Your task to perform on an android device: Open my contact list Image 0: 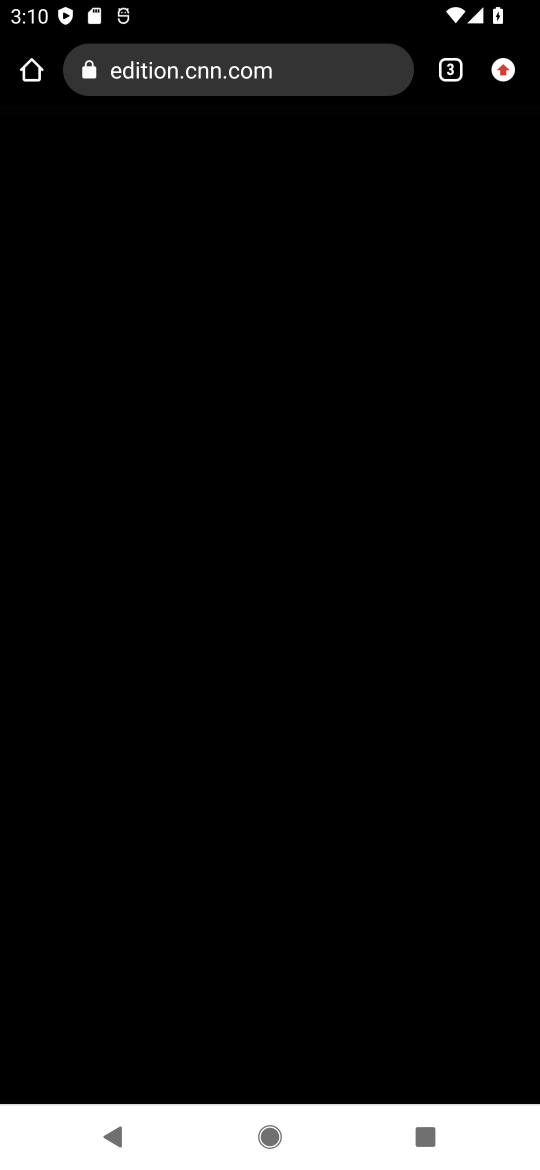
Step 0: drag from (253, 996) to (75, 264)
Your task to perform on an android device: Open my contact list Image 1: 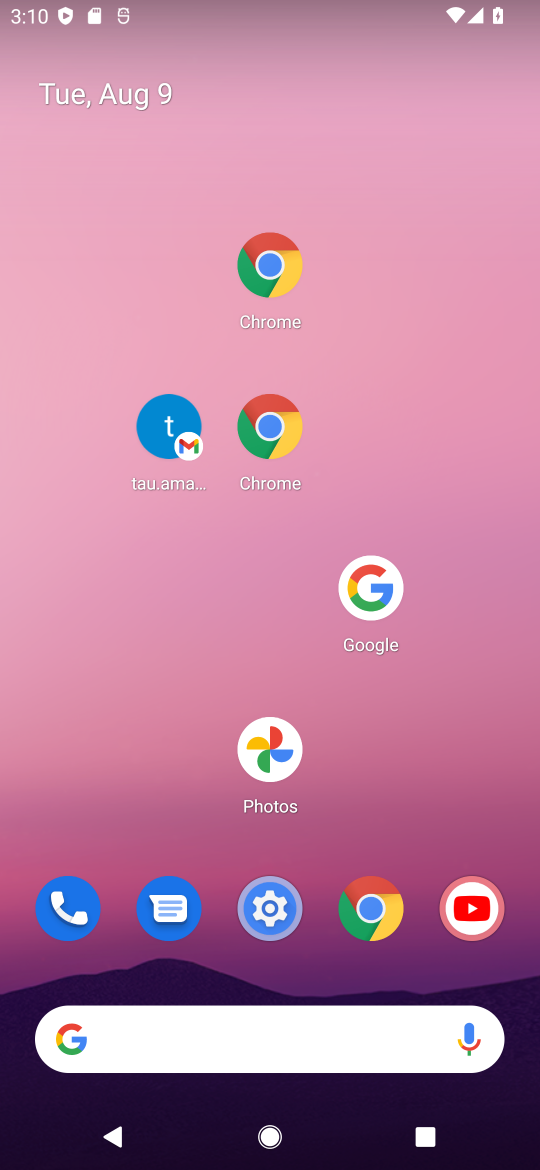
Step 1: drag from (318, 865) to (191, 73)
Your task to perform on an android device: Open my contact list Image 2: 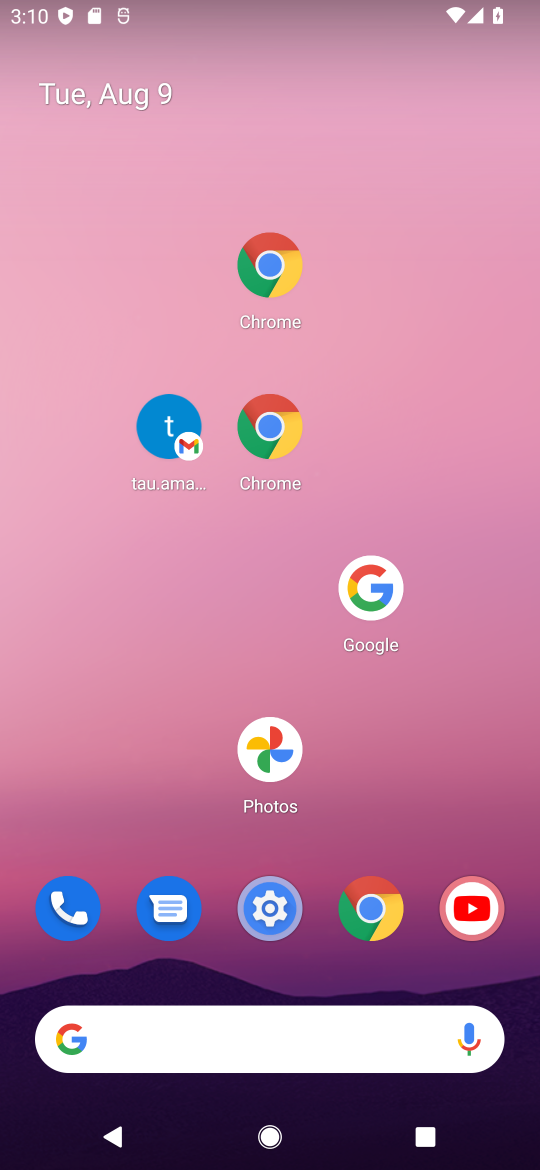
Step 2: drag from (206, 429) to (170, 293)
Your task to perform on an android device: Open my contact list Image 3: 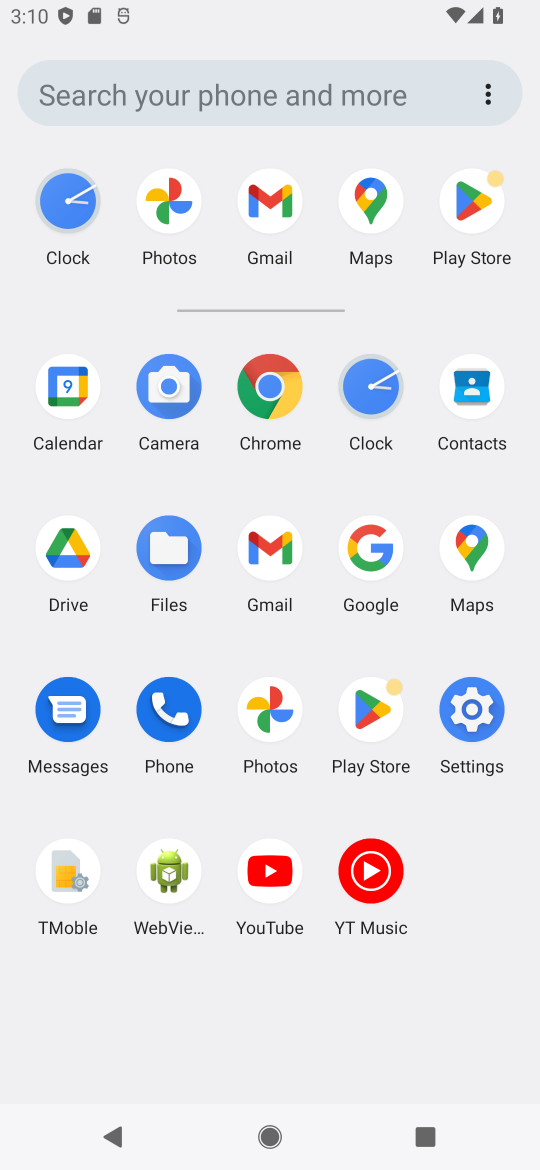
Step 3: click (229, 117)
Your task to perform on an android device: Open my contact list Image 4: 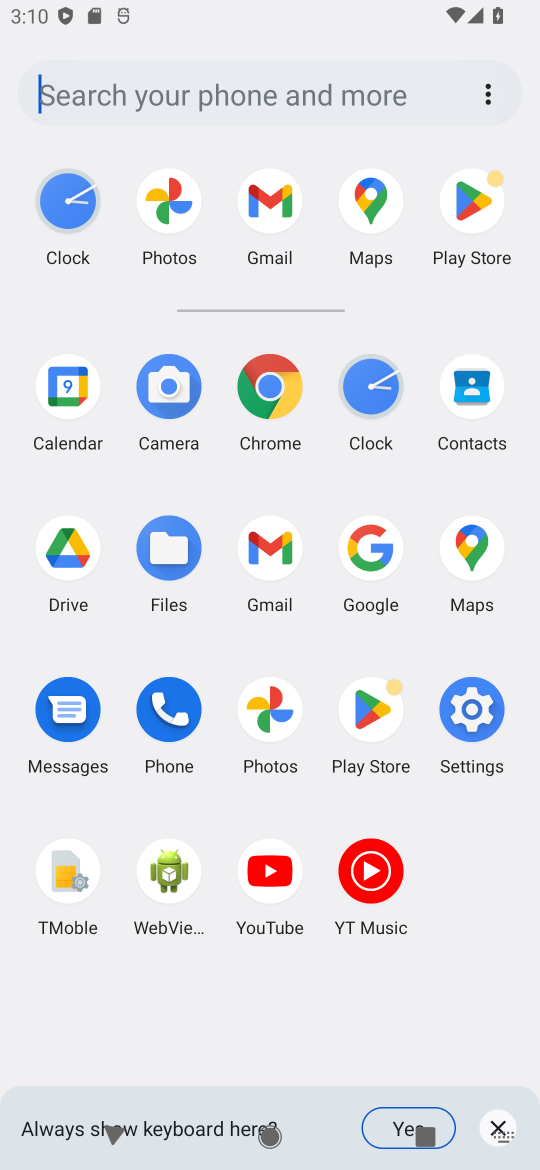
Step 4: click (478, 724)
Your task to perform on an android device: Open my contact list Image 5: 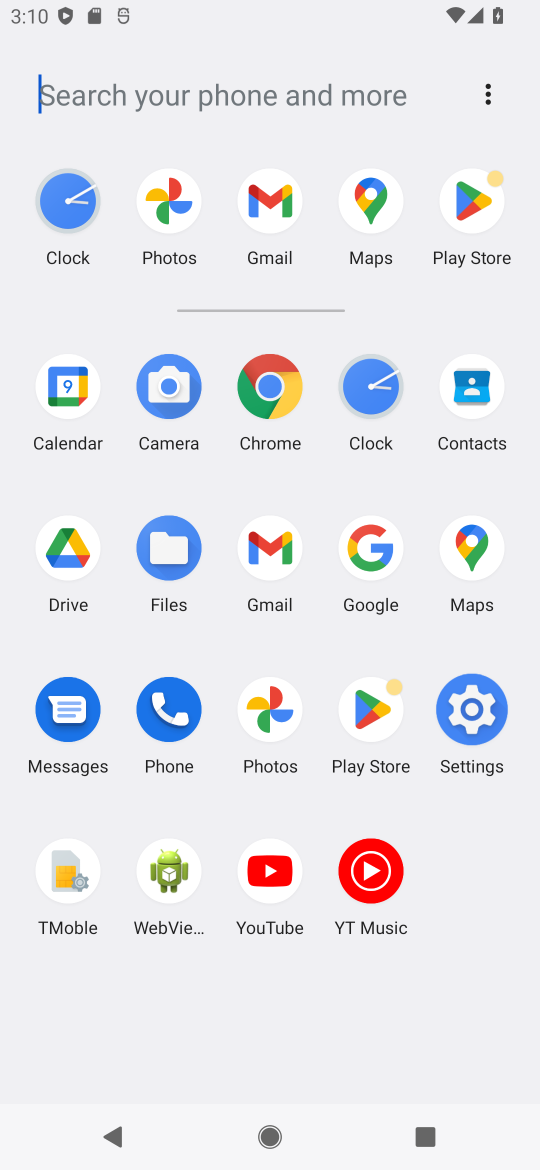
Step 5: click (479, 725)
Your task to perform on an android device: Open my contact list Image 6: 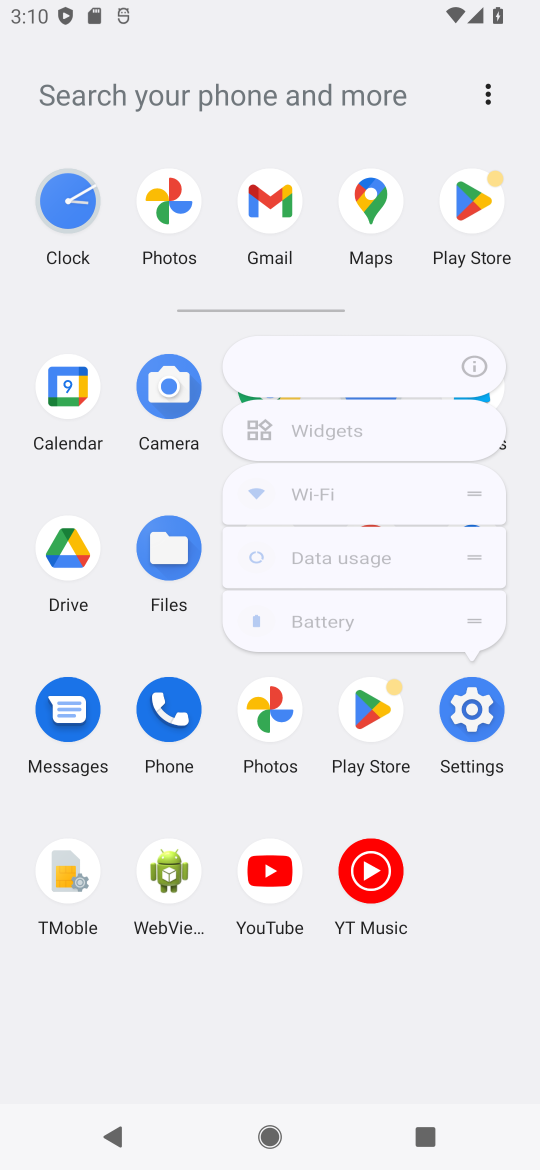
Step 6: click (482, 726)
Your task to perform on an android device: Open my contact list Image 7: 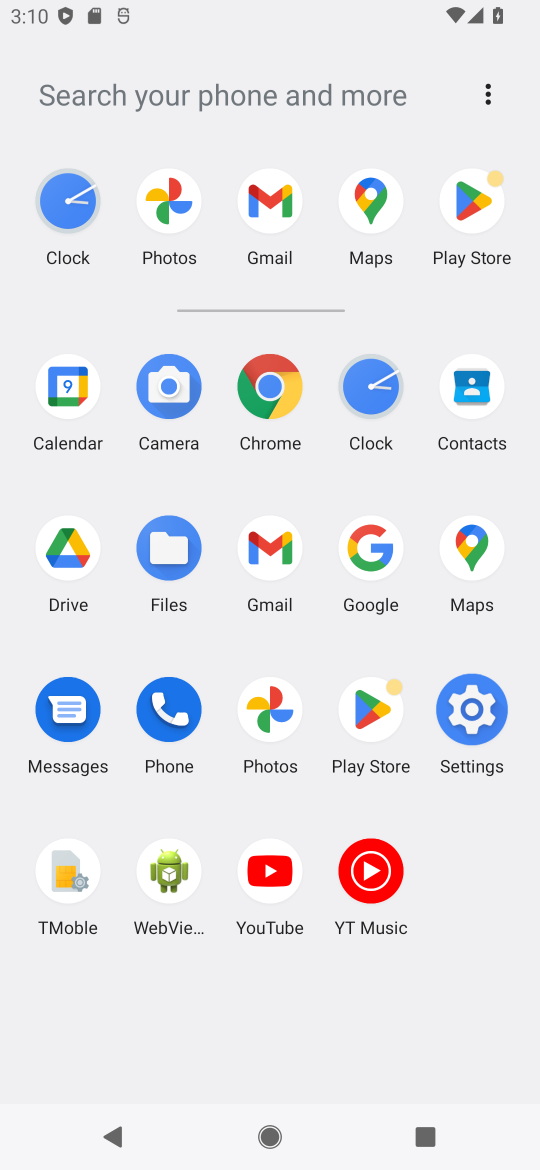
Step 7: click (482, 726)
Your task to perform on an android device: Open my contact list Image 8: 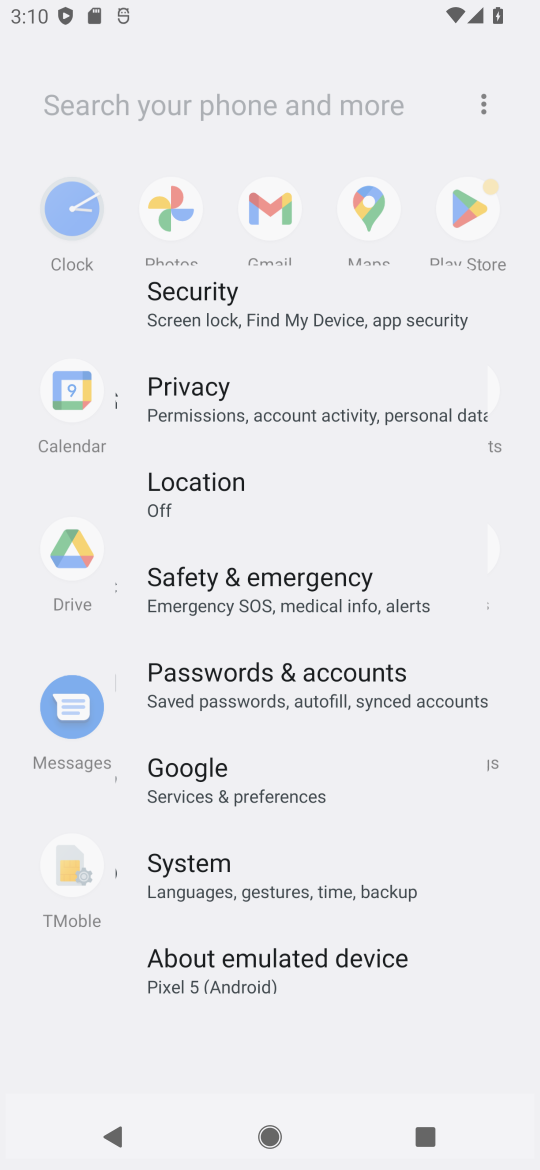
Step 8: click (482, 726)
Your task to perform on an android device: Open my contact list Image 9: 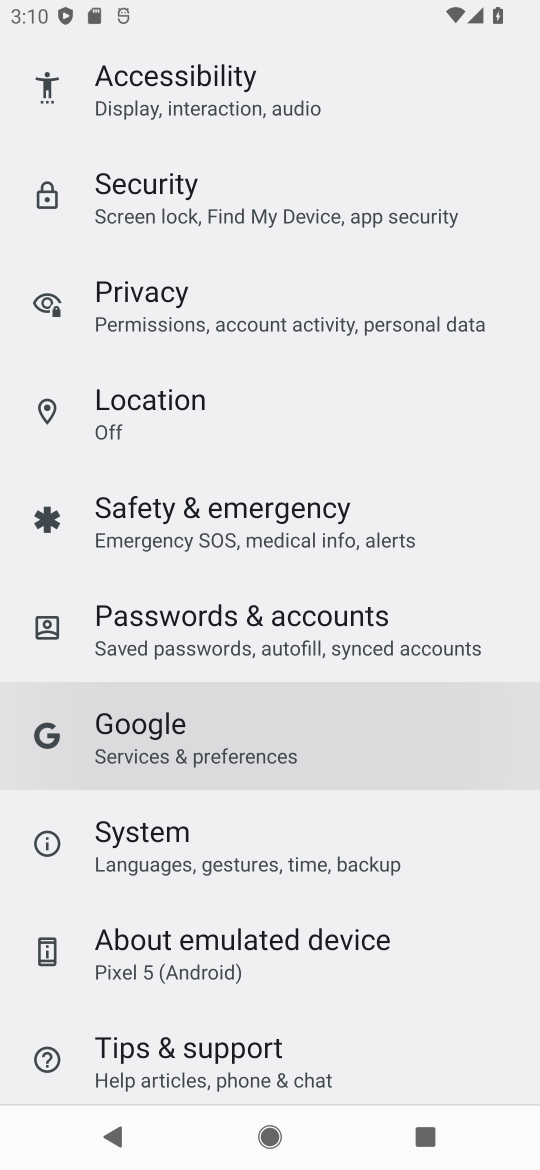
Step 9: click (482, 726)
Your task to perform on an android device: Open my contact list Image 10: 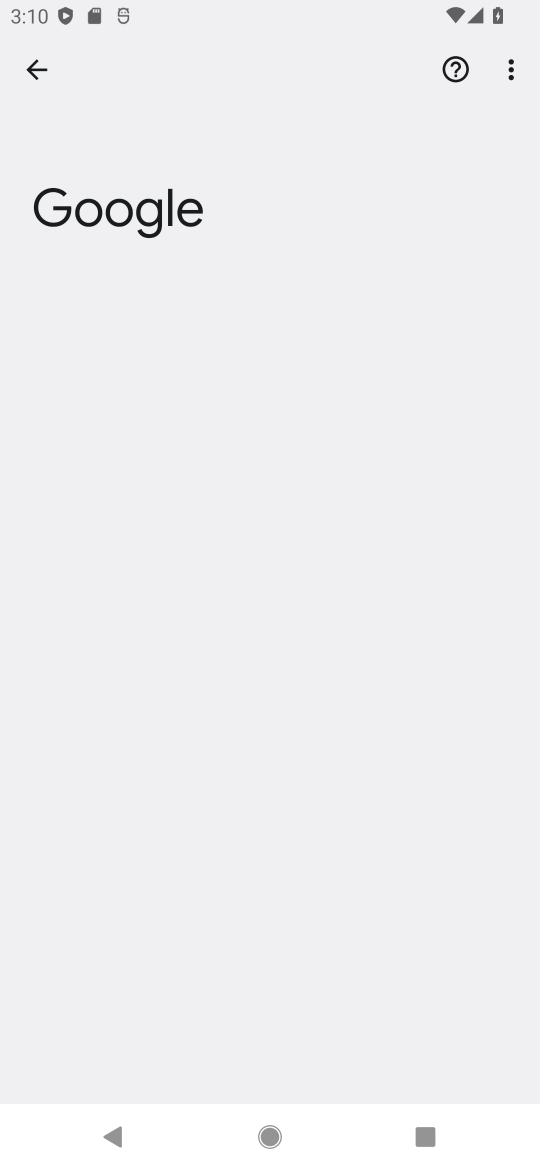
Step 10: press back button
Your task to perform on an android device: Open my contact list Image 11: 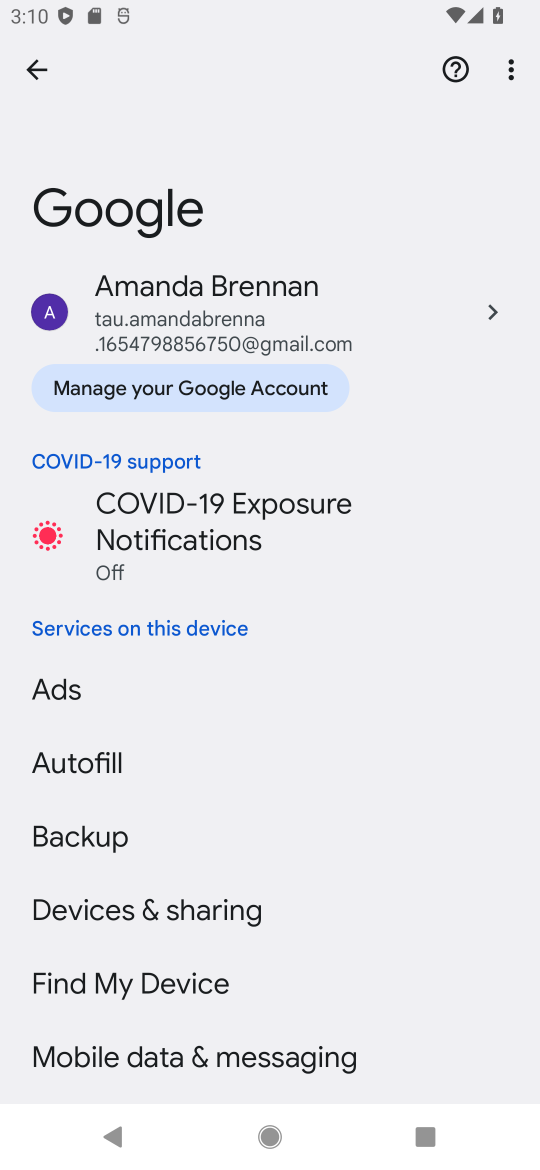
Step 11: click (47, 71)
Your task to perform on an android device: Open my contact list Image 12: 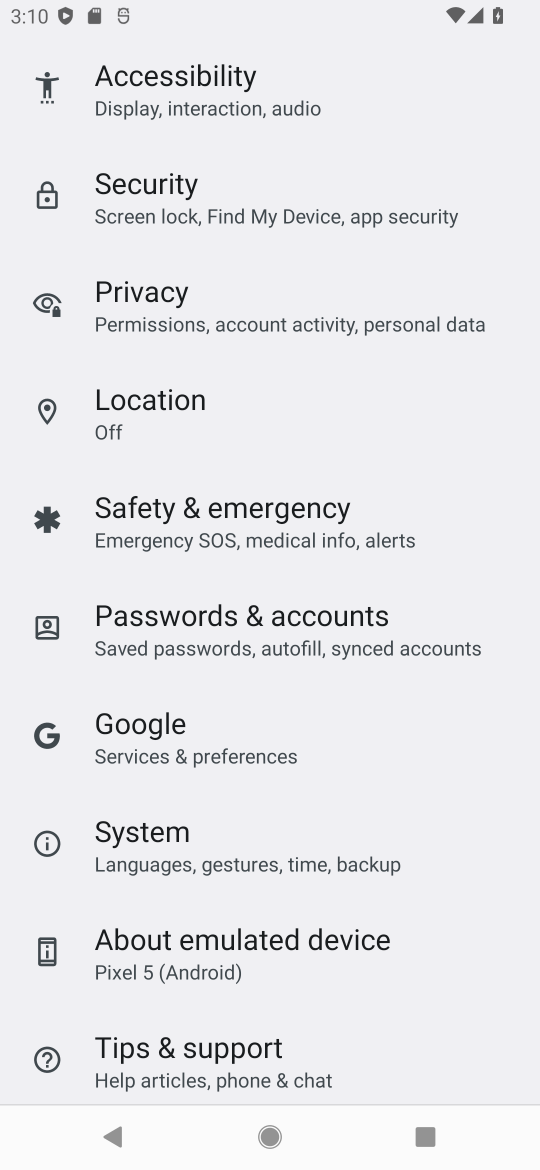
Step 12: press home button
Your task to perform on an android device: Open my contact list Image 13: 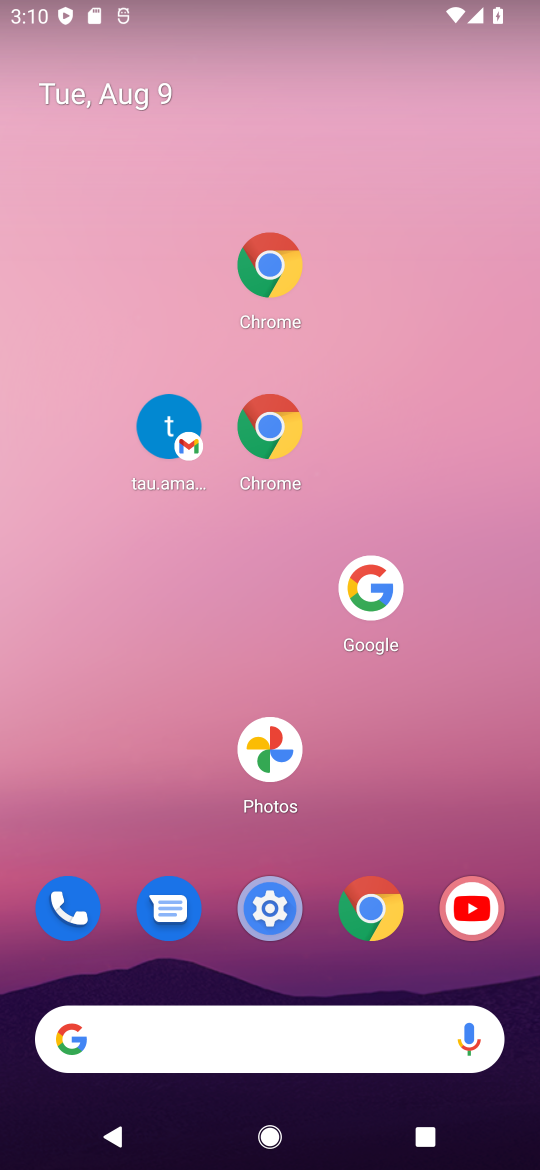
Step 13: drag from (122, 1027) to (286, 301)
Your task to perform on an android device: Open my contact list Image 14: 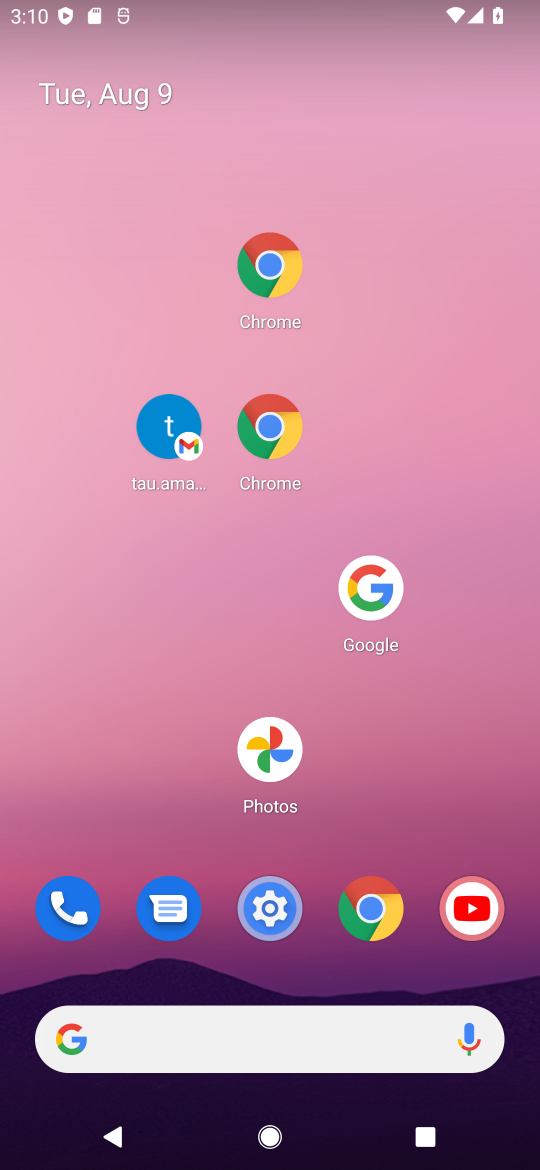
Step 14: drag from (291, 907) to (229, 188)
Your task to perform on an android device: Open my contact list Image 15: 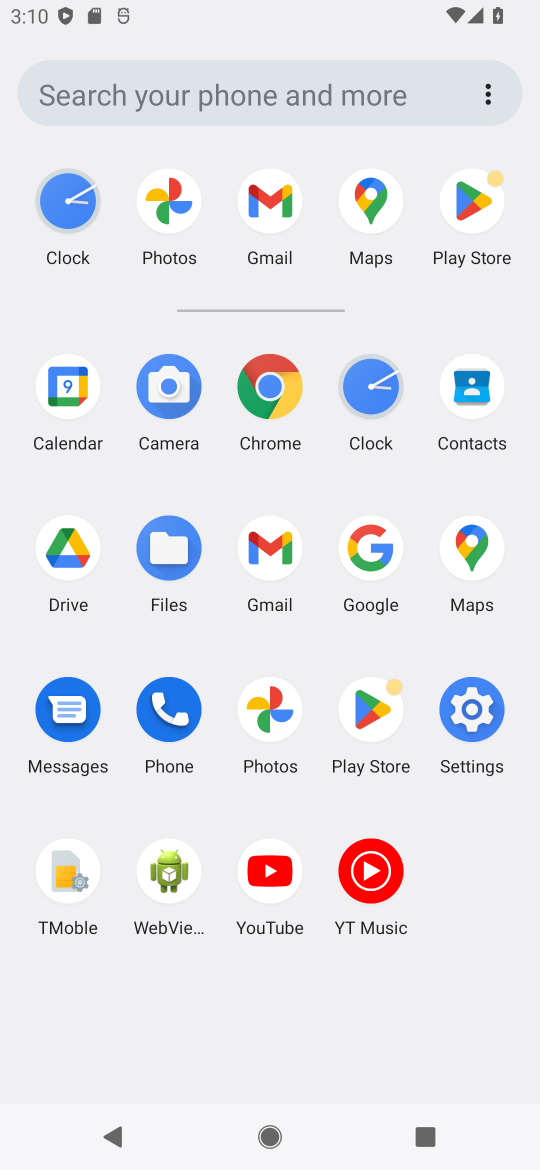
Step 15: click (486, 709)
Your task to perform on an android device: Open my contact list Image 16: 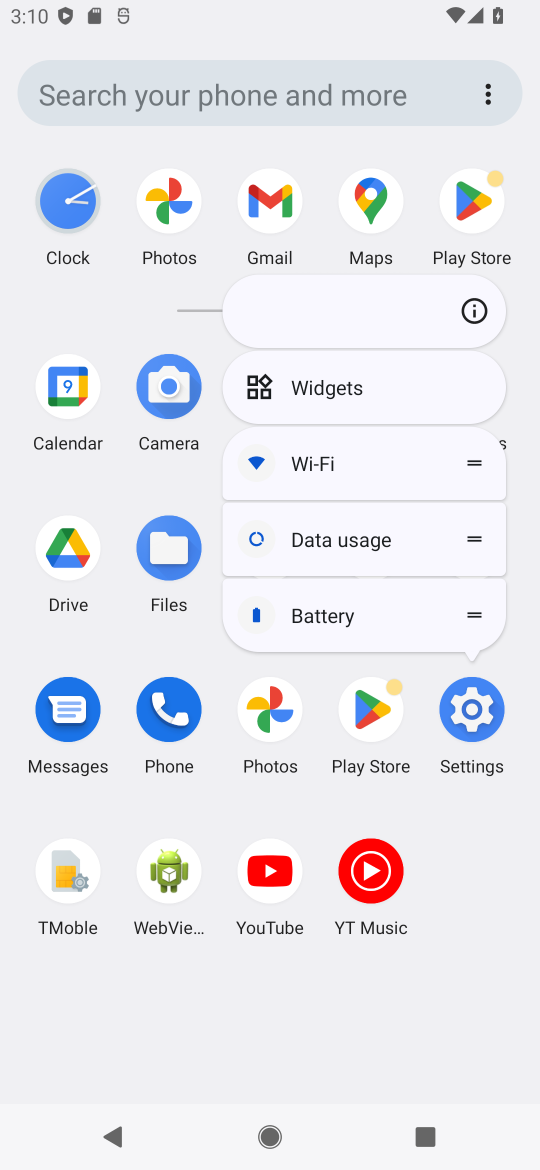
Step 16: press back button
Your task to perform on an android device: Open my contact list Image 17: 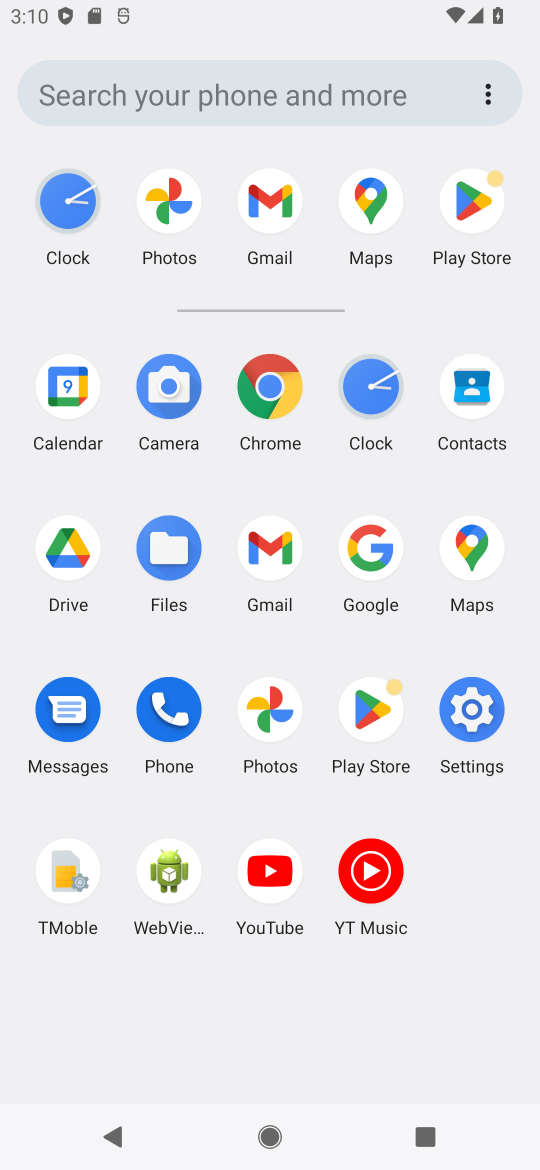
Step 17: click (470, 394)
Your task to perform on an android device: Open my contact list Image 18: 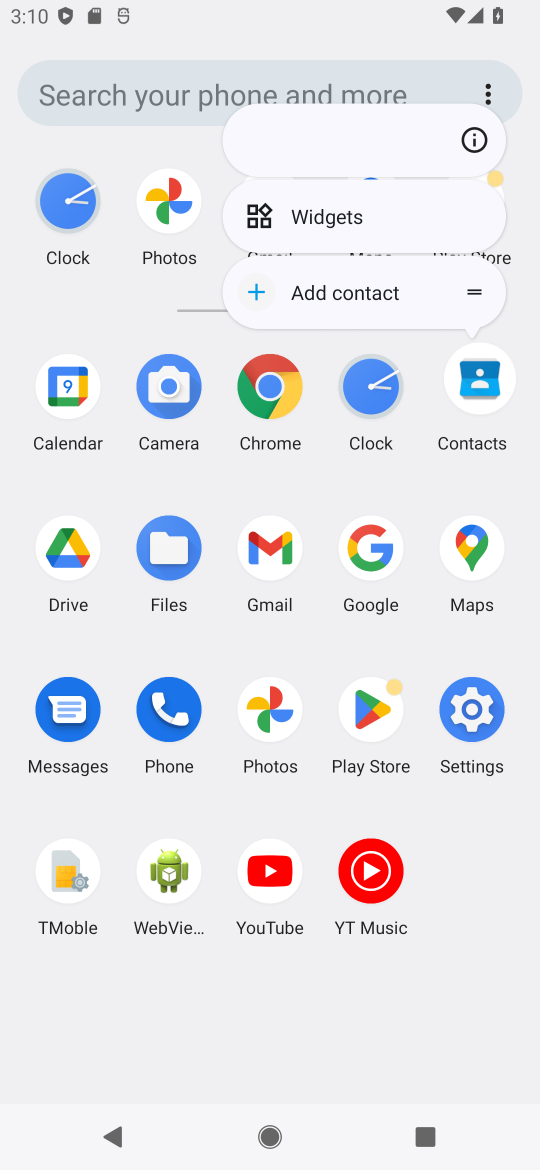
Step 18: click (474, 388)
Your task to perform on an android device: Open my contact list Image 19: 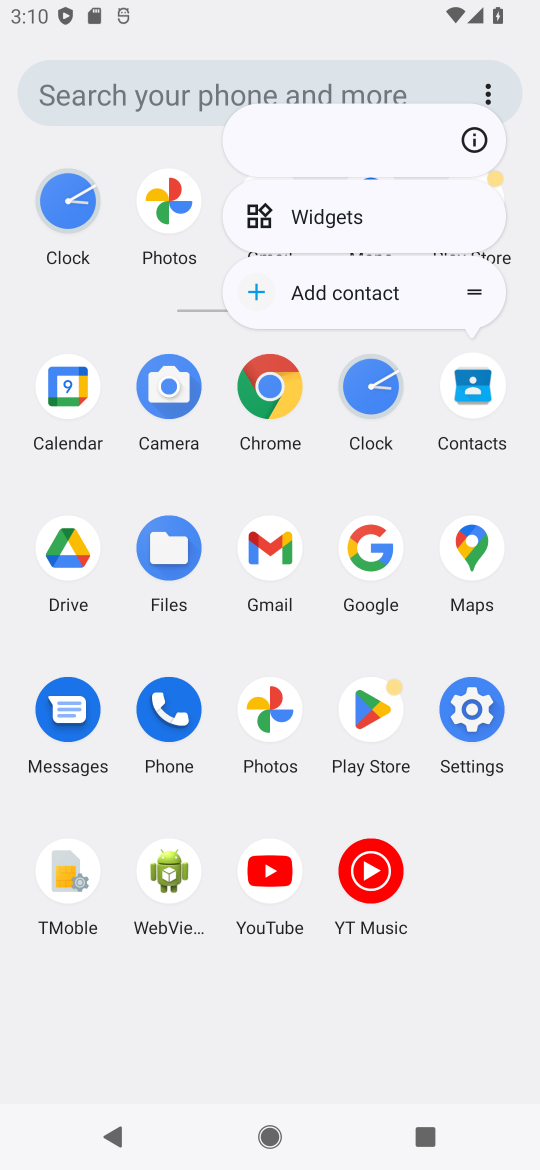
Step 19: click (474, 390)
Your task to perform on an android device: Open my contact list Image 20: 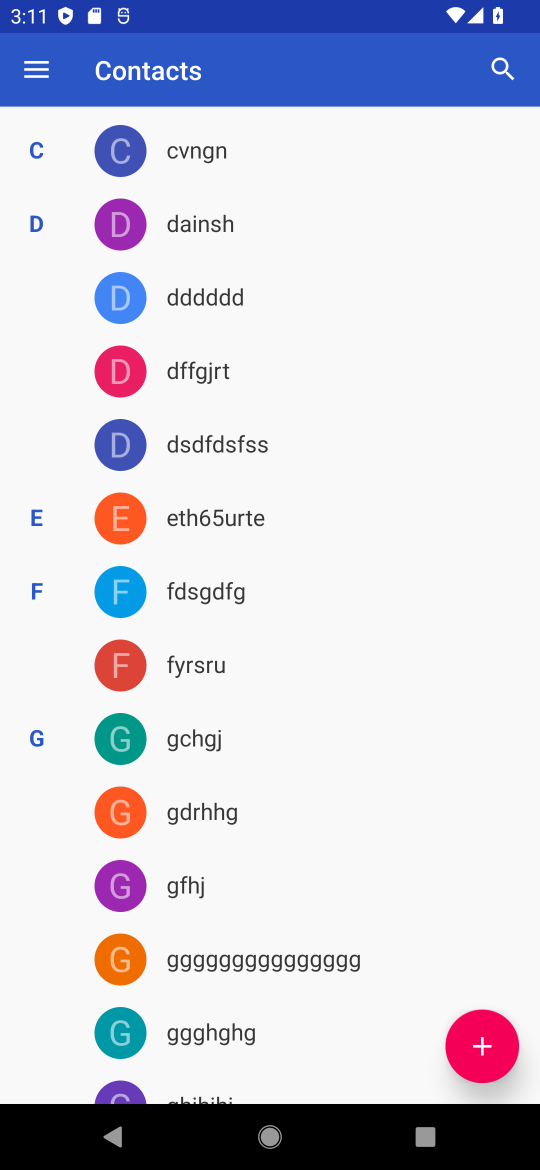
Step 20: task complete